Your task to perform on an android device: What's on my calendar today? Image 0: 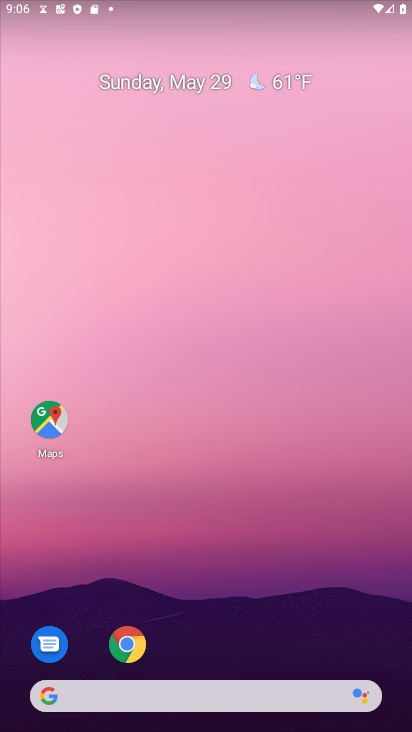
Step 0: drag from (240, 683) to (283, 0)
Your task to perform on an android device: What's on my calendar today? Image 1: 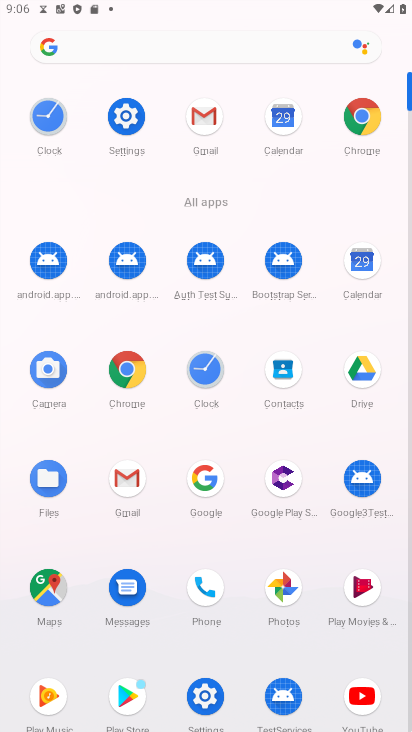
Step 1: click (353, 277)
Your task to perform on an android device: What's on my calendar today? Image 2: 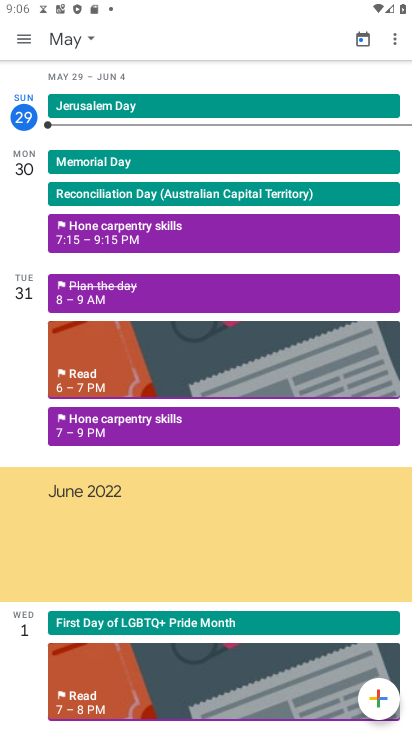
Step 2: task complete